Your task to perform on an android device: change the clock display to digital Image 0: 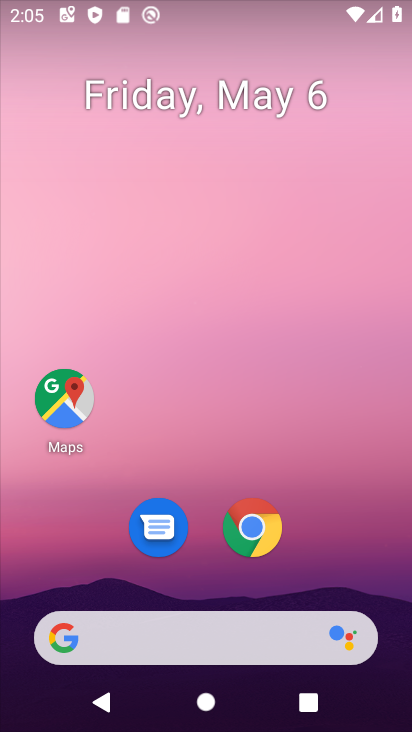
Step 0: click (407, 501)
Your task to perform on an android device: change the clock display to digital Image 1: 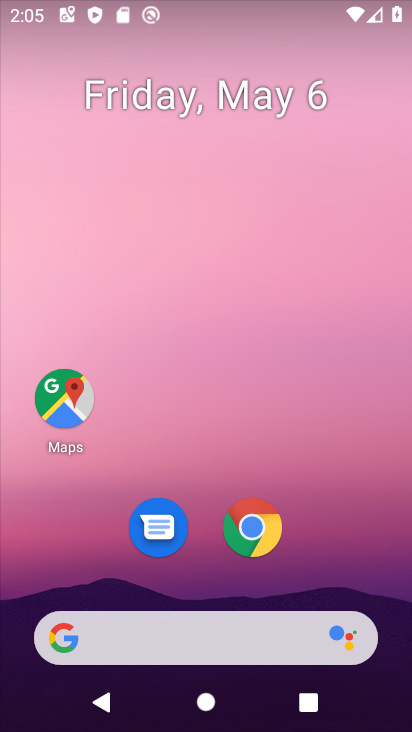
Step 1: drag from (304, 537) to (298, 112)
Your task to perform on an android device: change the clock display to digital Image 2: 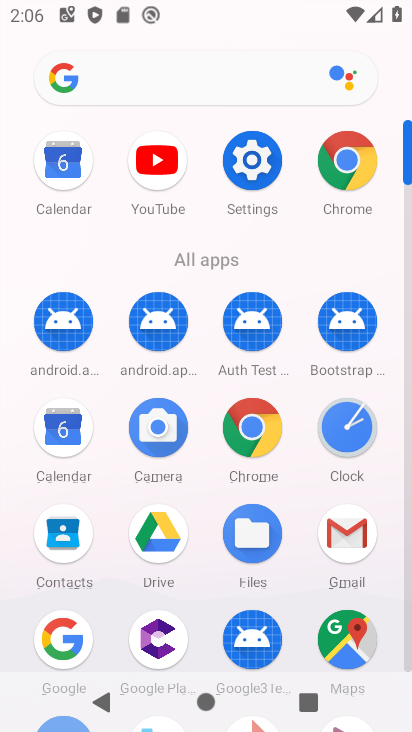
Step 2: click (358, 418)
Your task to perform on an android device: change the clock display to digital Image 3: 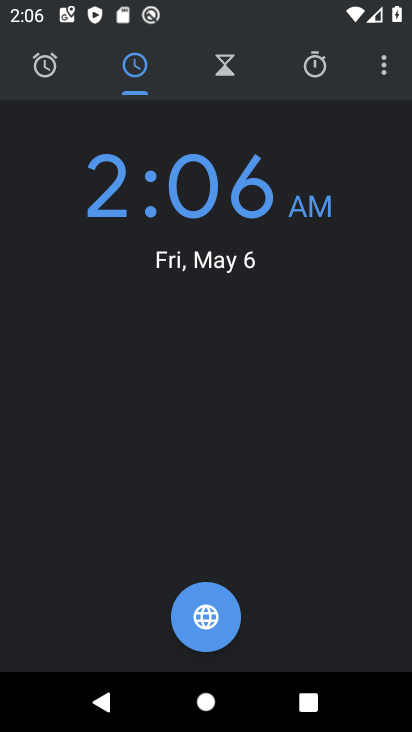
Step 3: click (384, 67)
Your task to perform on an android device: change the clock display to digital Image 4: 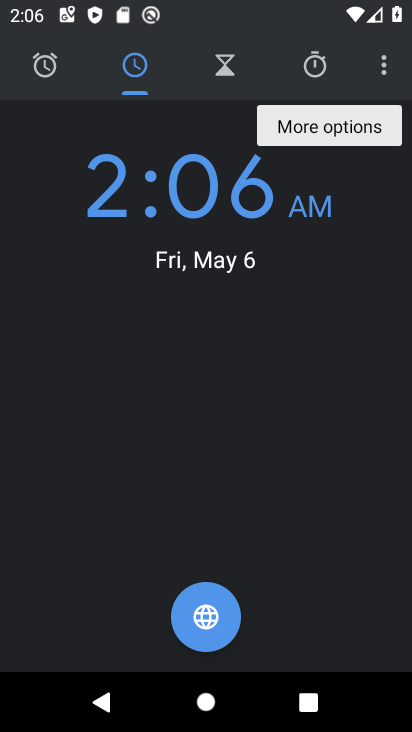
Step 4: click (381, 70)
Your task to perform on an android device: change the clock display to digital Image 5: 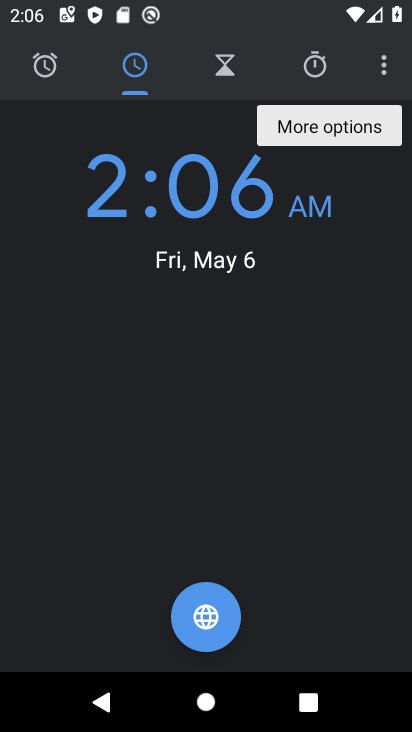
Step 5: click (381, 70)
Your task to perform on an android device: change the clock display to digital Image 6: 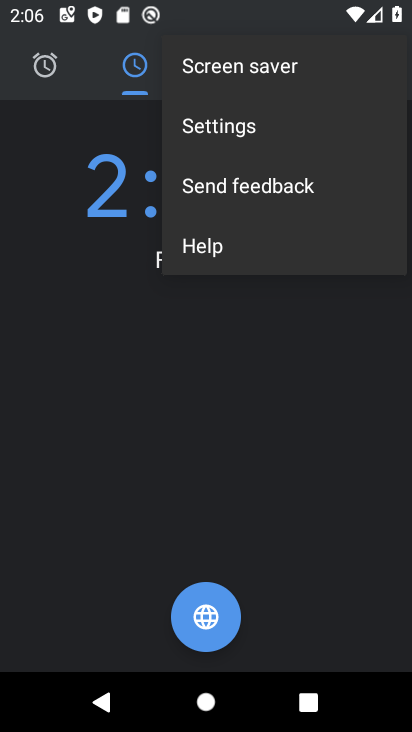
Step 6: click (269, 118)
Your task to perform on an android device: change the clock display to digital Image 7: 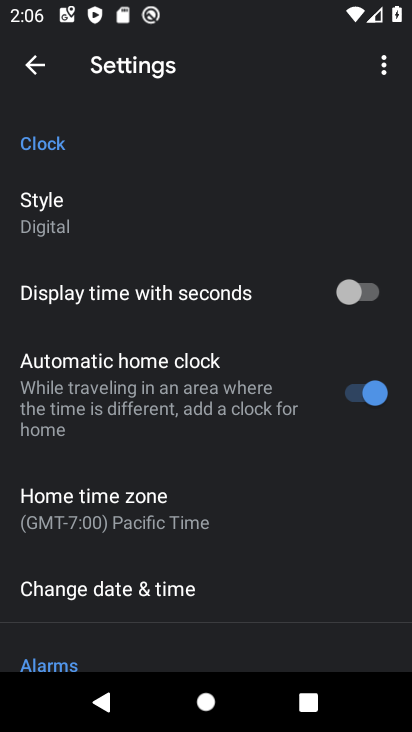
Step 7: click (47, 216)
Your task to perform on an android device: change the clock display to digital Image 8: 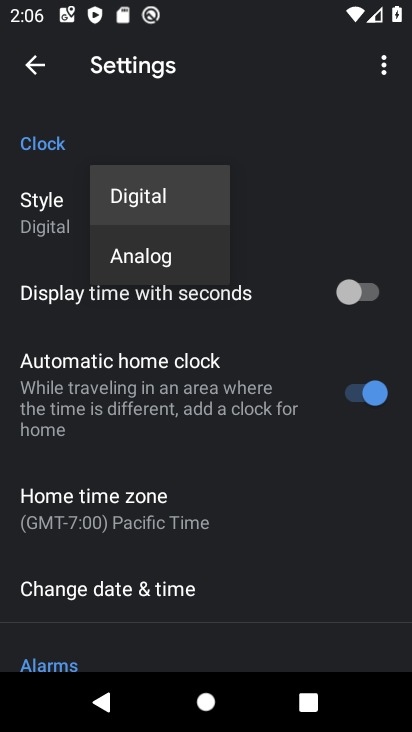
Step 8: click (127, 184)
Your task to perform on an android device: change the clock display to digital Image 9: 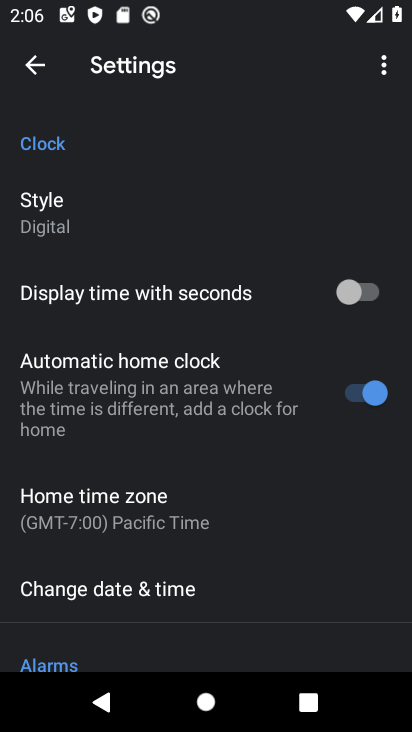
Step 9: task complete